Your task to perform on an android device: open a bookmark in the chrome app Image 0: 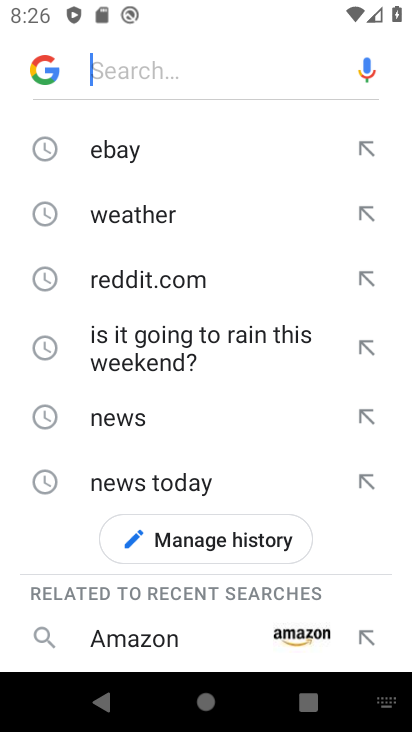
Step 0: press home button
Your task to perform on an android device: open a bookmark in the chrome app Image 1: 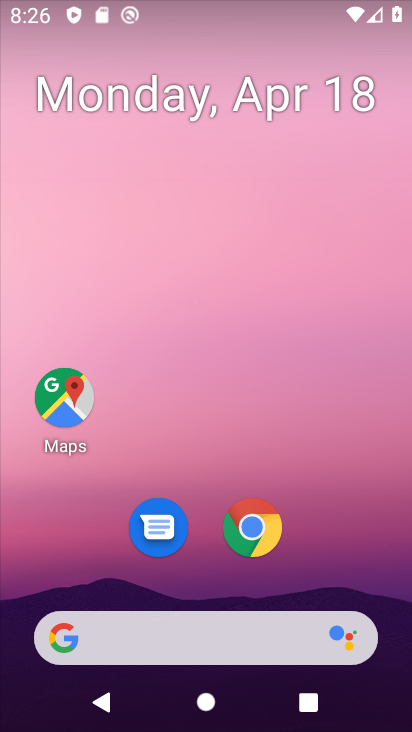
Step 1: drag from (296, 563) to (308, 81)
Your task to perform on an android device: open a bookmark in the chrome app Image 2: 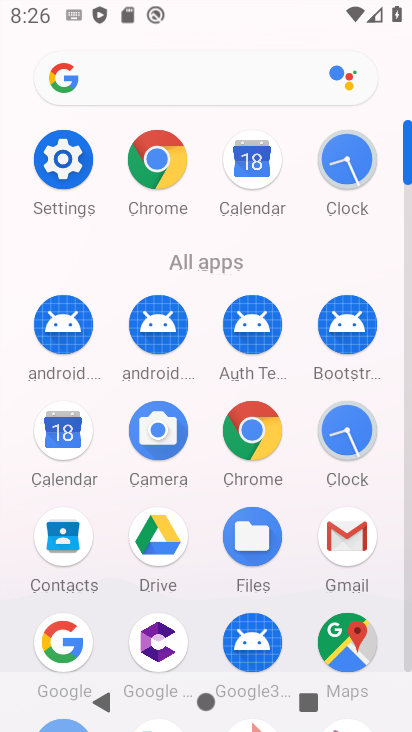
Step 2: click (257, 430)
Your task to perform on an android device: open a bookmark in the chrome app Image 3: 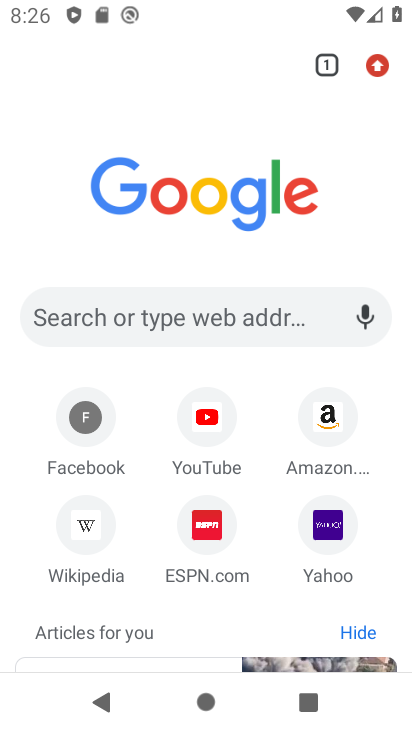
Step 3: task complete